Your task to perform on an android device: Go to display settings Image 0: 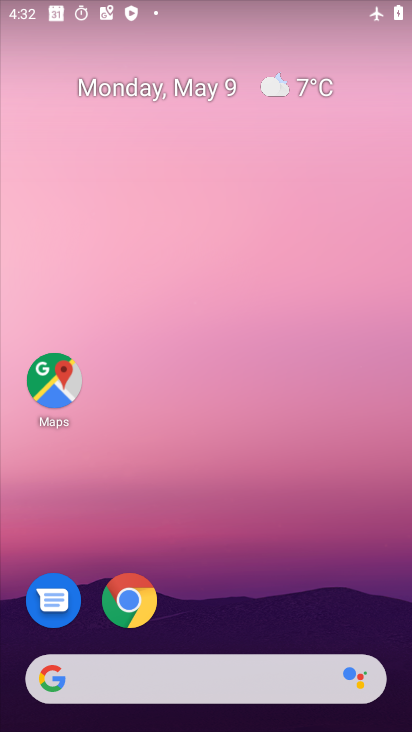
Step 0: drag from (285, 597) to (279, 51)
Your task to perform on an android device: Go to display settings Image 1: 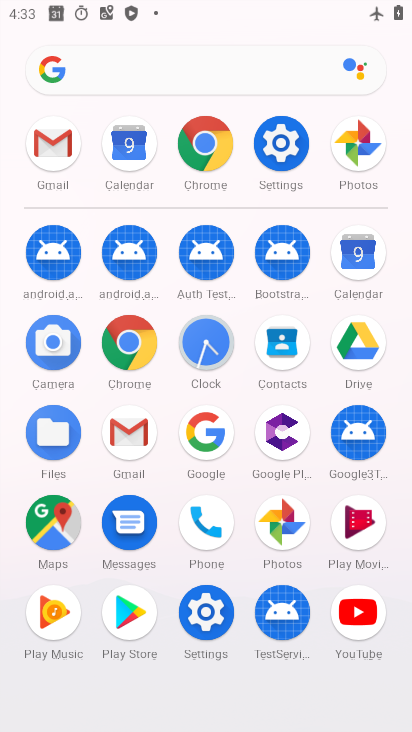
Step 1: click (285, 136)
Your task to perform on an android device: Go to display settings Image 2: 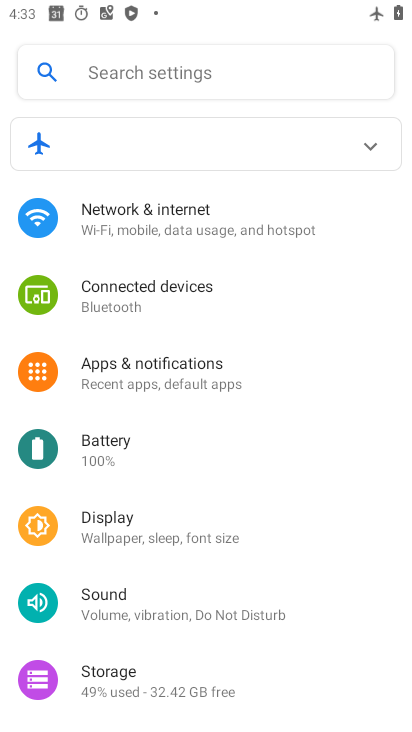
Step 2: click (141, 541)
Your task to perform on an android device: Go to display settings Image 3: 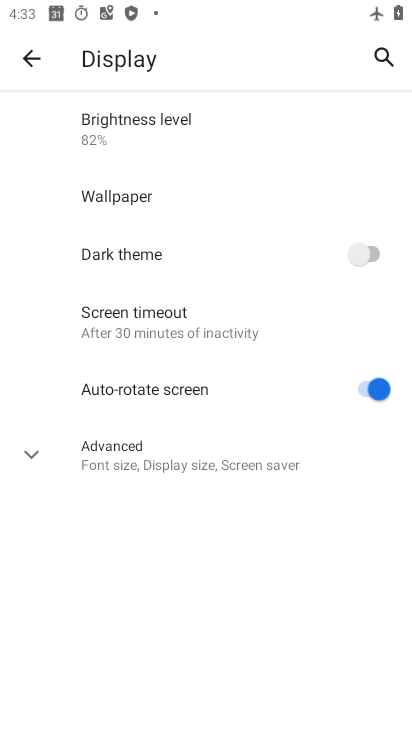
Step 3: task complete